Your task to perform on an android device: turn notification dots on Image 0: 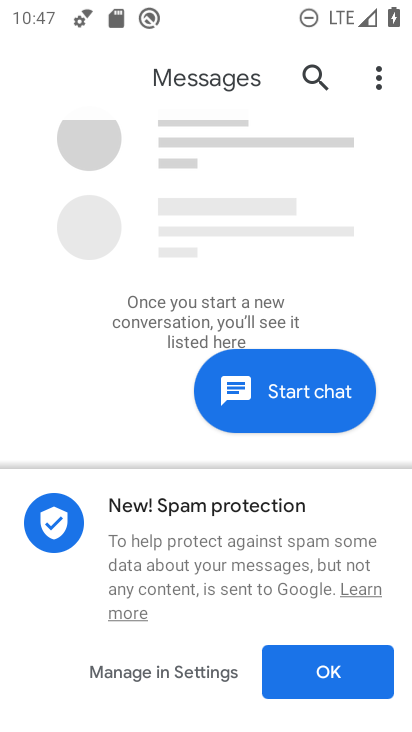
Step 0: press home button
Your task to perform on an android device: turn notification dots on Image 1: 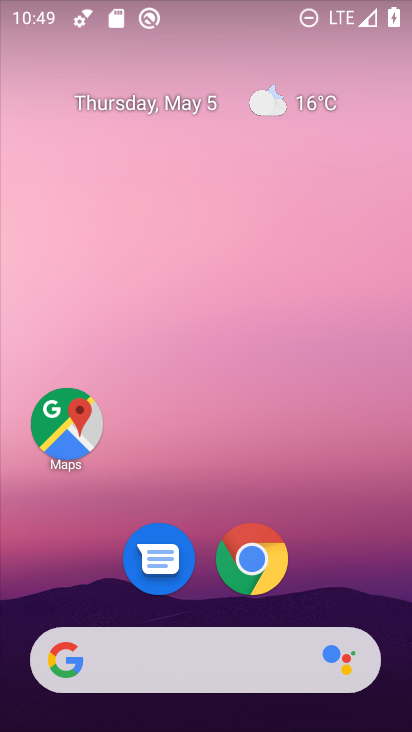
Step 1: drag from (389, 651) to (274, 143)
Your task to perform on an android device: turn notification dots on Image 2: 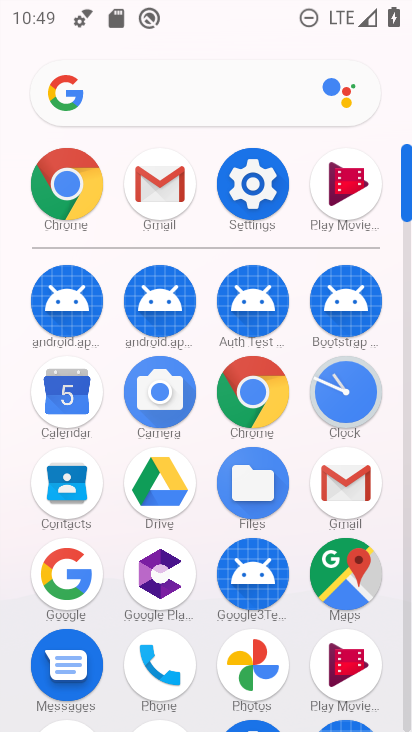
Step 2: click (239, 188)
Your task to perform on an android device: turn notification dots on Image 3: 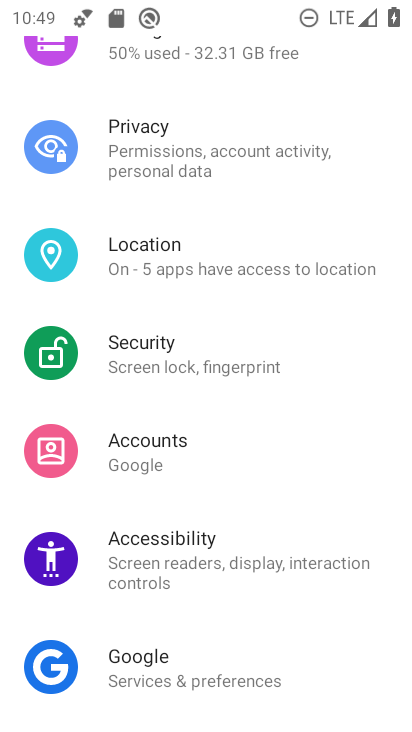
Step 3: drag from (201, 176) to (243, 602)
Your task to perform on an android device: turn notification dots on Image 4: 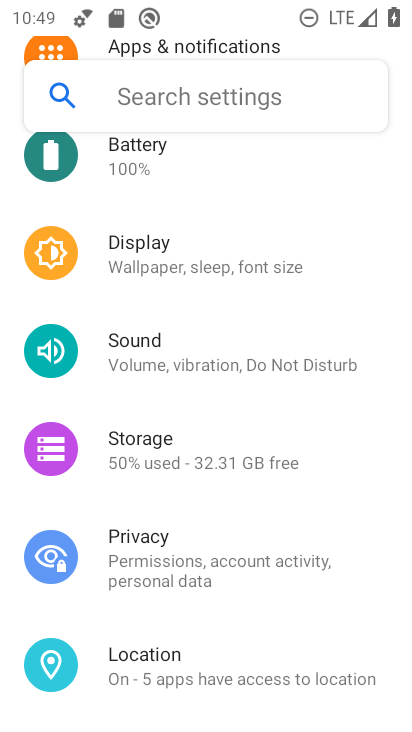
Step 4: drag from (231, 200) to (283, 504)
Your task to perform on an android device: turn notification dots on Image 5: 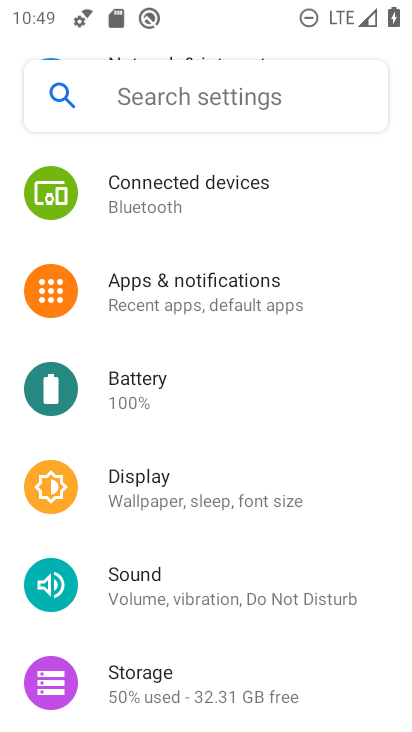
Step 5: click (206, 308)
Your task to perform on an android device: turn notification dots on Image 6: 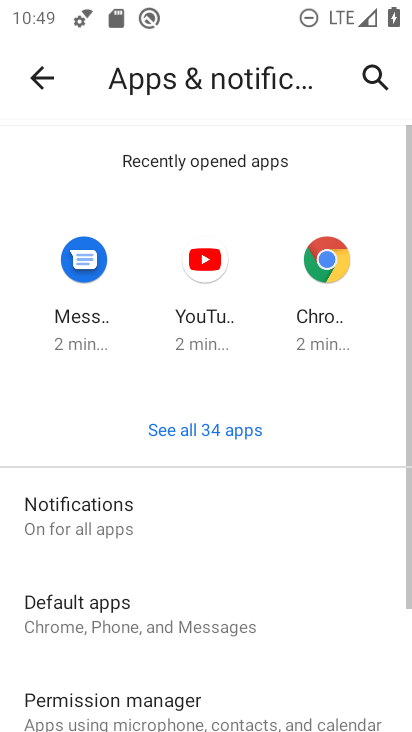
Step 6: click (202, 502)
Your task to perform on an android device: turn notification dots on Image 7: 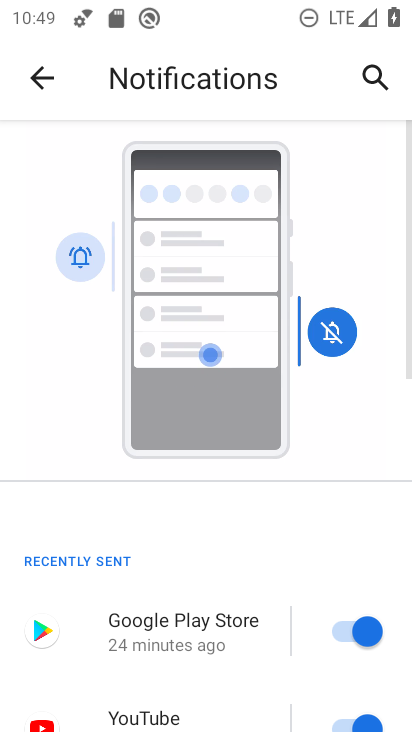
Step 7: drag from (186, 662) to (203, 142)
Your task to perform on an android device: turn notification dots on Image 8: 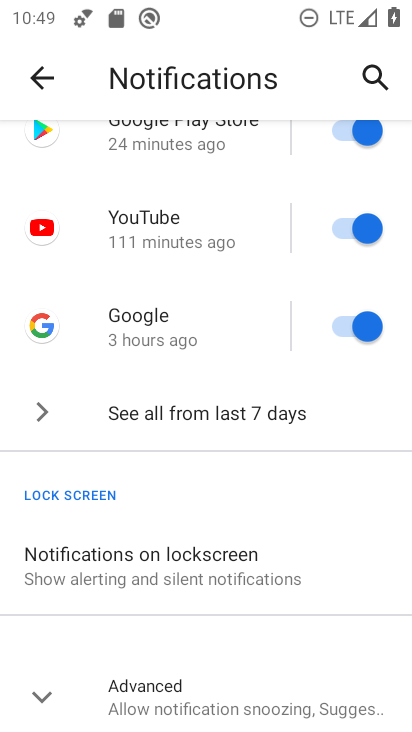
Step 8: click (81, 681)
Your task to perform on an android device: turn notification dots on Image 9: 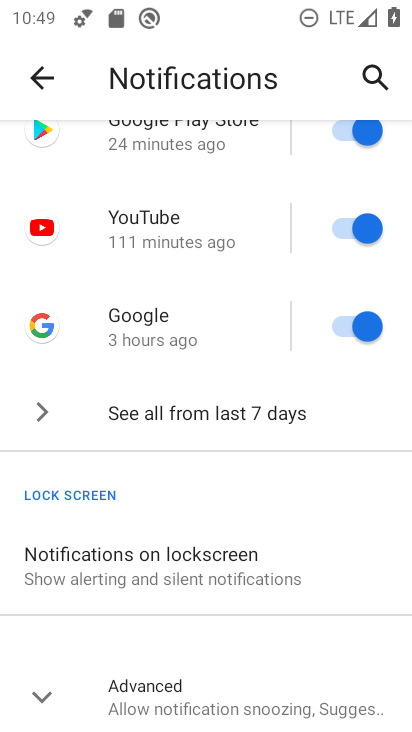
Step 9: drag from (83, 680) to (101, 10)
Your task to perform on an android device: turn notification dots on Image 10: 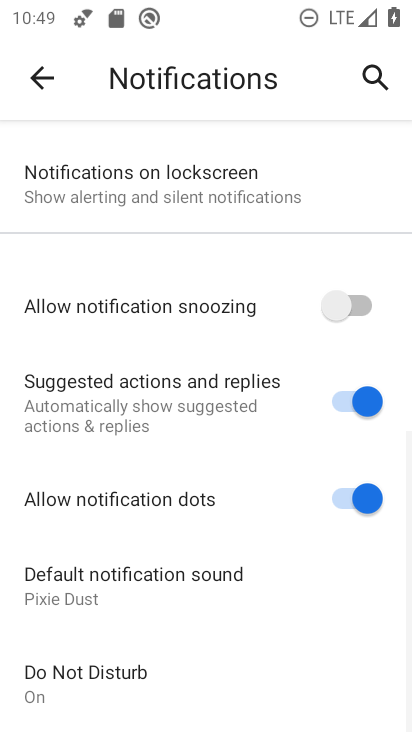
Step 10: click (209, 505)
Your task to perform on an android device: turn notification dots on Image 11: 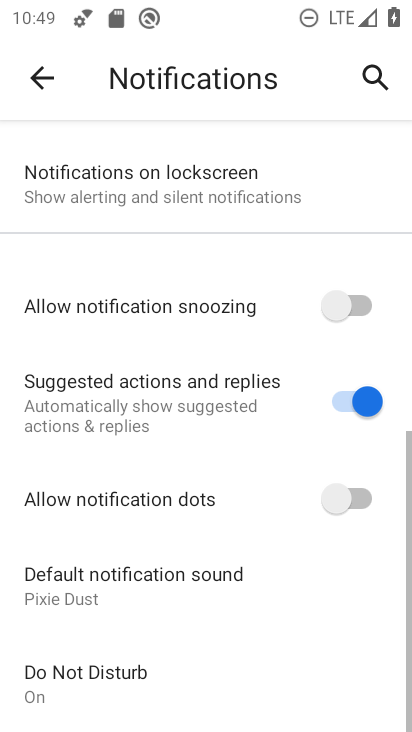
Step 11: click (209, 505)
Your task to perform on an android device: turn notification dots on Image 12: 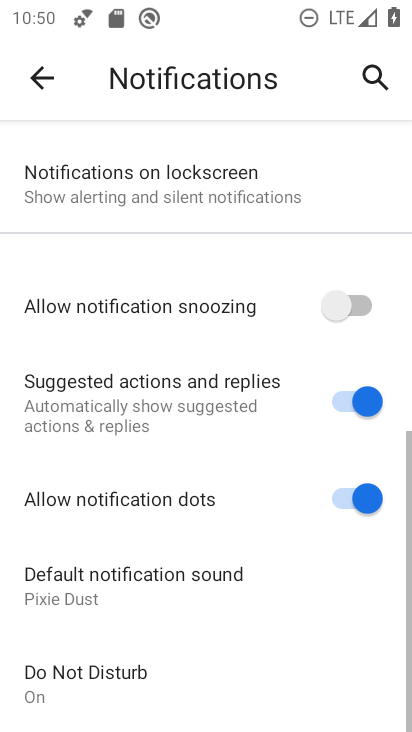
Step 12: task complete